Your task to perform on an android device: See recent photos Image 0: 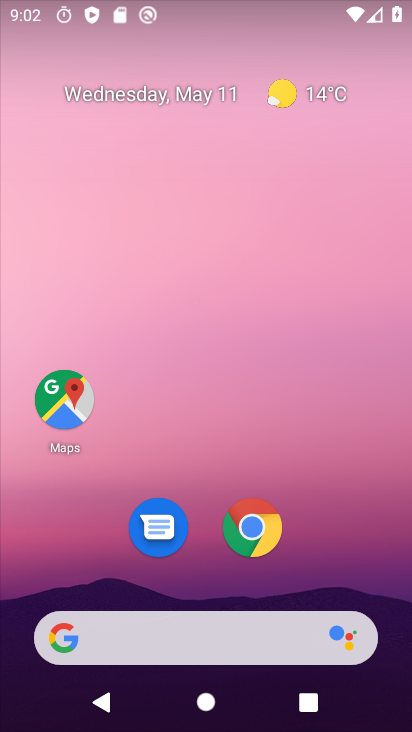
Step 0: drag from (204, 553) to (169, 81)
Your task to perform on an android device: See recent photos Image 1: 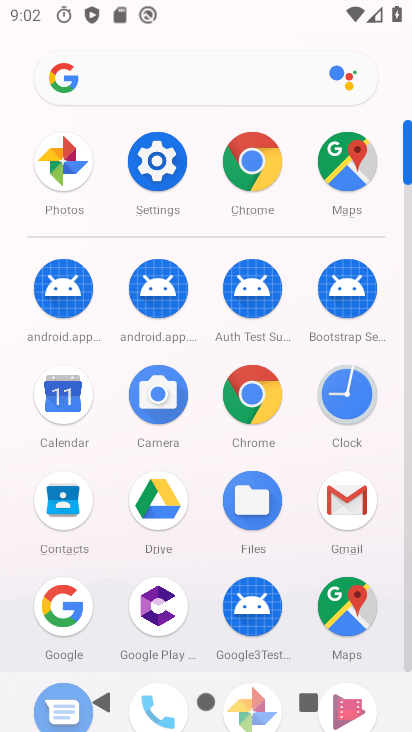
Step 1: drag from (209, 442) to (175, 156)
Your task to perform on an android device: See recent photos Image 2: 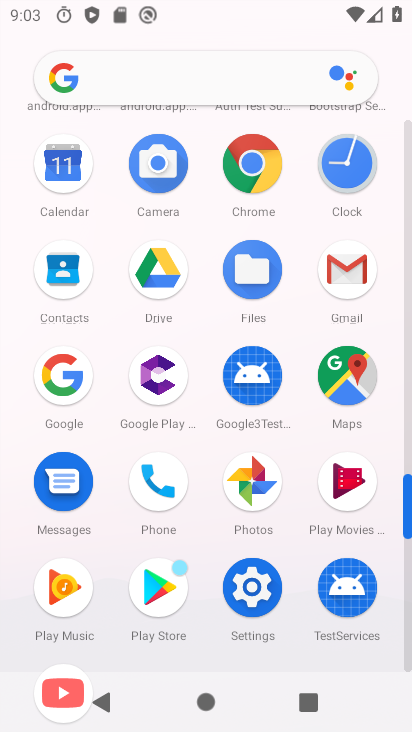
Step 2: drag from (176, 482) to (136, 174)
Your task to perform on an android device: See recent photos Image 3: 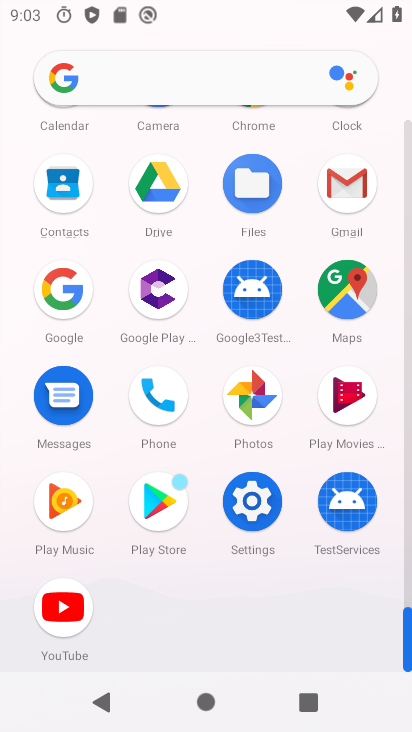
Step 3: click (246, 403)
Your task to perform on an android device: See recent photos Image 4: 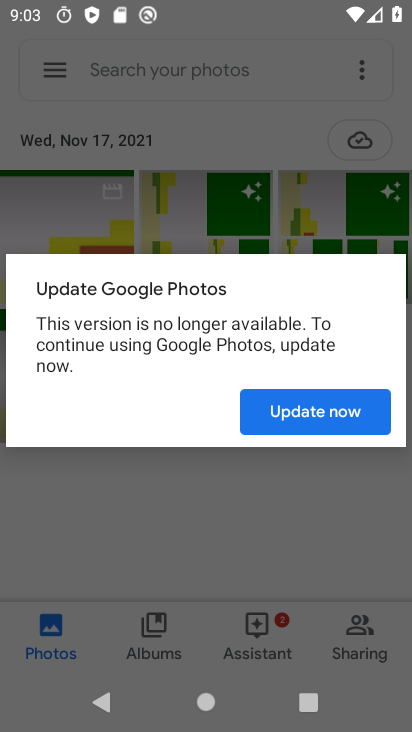
Step 4: task complete